Your task to perform on an android device: open chrome privacy settings Image 0: 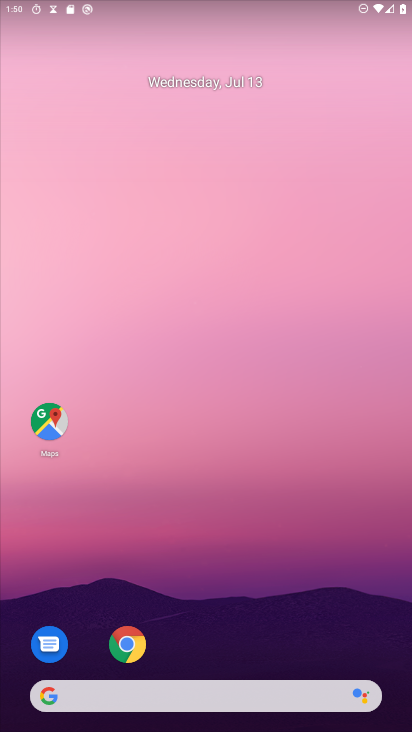
Step 0: press home button
Your task to perform on an android device: open chrome privacy settings Image 1: 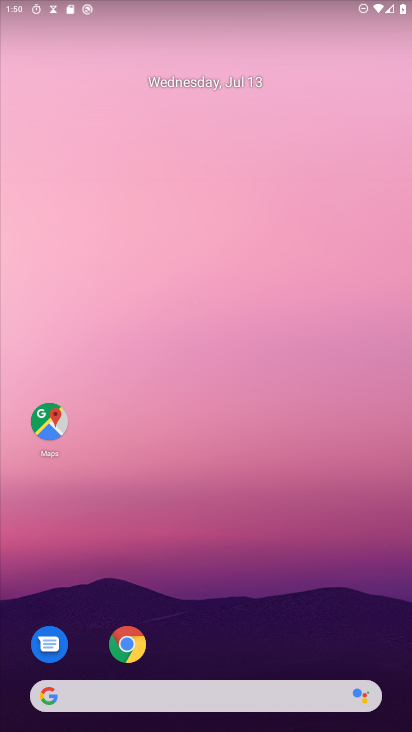
Step 1: click (131, 652)
Your task to perform on an android device: open chrome privacy settings Image 2: 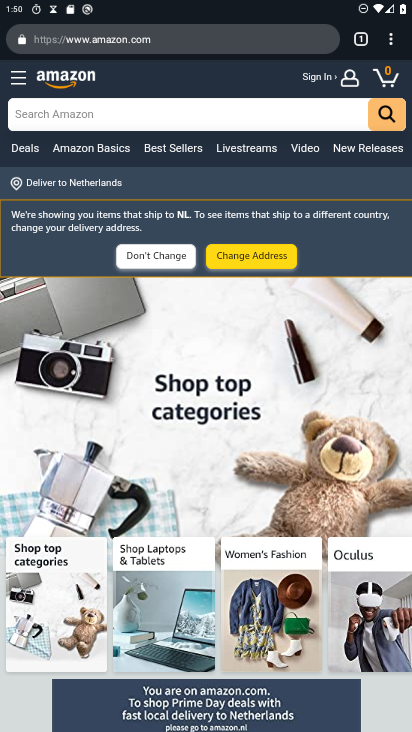
Step 2: drag from (393, 46) to (254, 475)
Your task to perform on an android device: open chrome privacy settings Image 3: 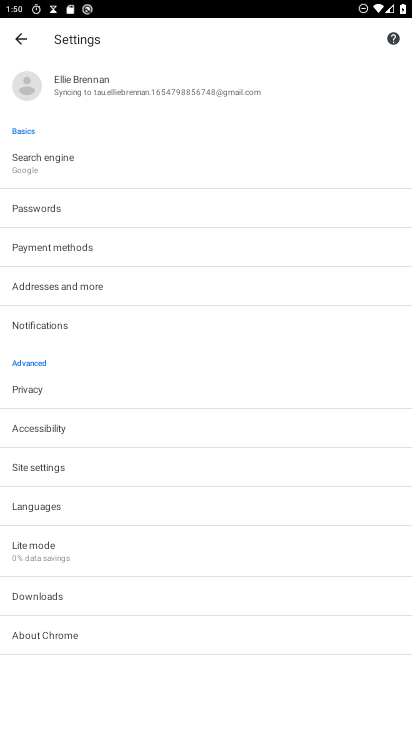
Step 3: click (30, 390)
Your task to perform on an android device: open chrome privacy settings Image 4: 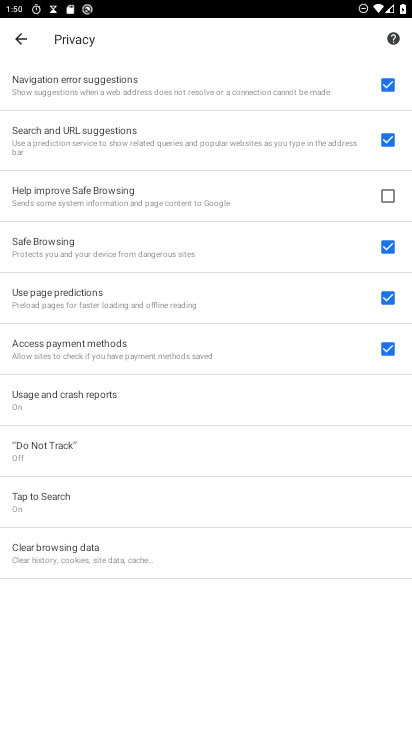
Step 4: task complete